Your task to perform on an android device: toggle priority inbox in the gmail app Image 0: 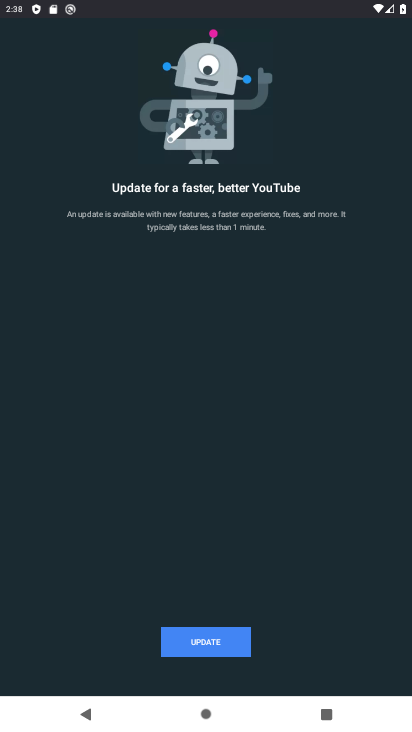
Step 0: press back button
Your task to perform on an android device: toggle priority inbox in the gmail app Image 1: 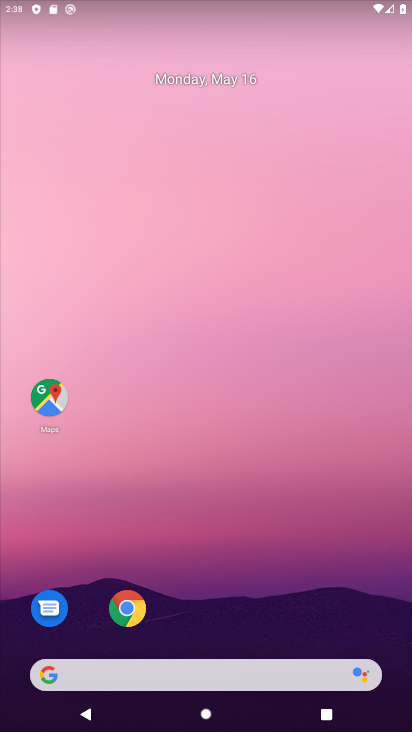
Step 1: drag from (262, 579) to (297, 119)
Your task to perform on an android device: toggle priority inbox in the gmail app Image 2: 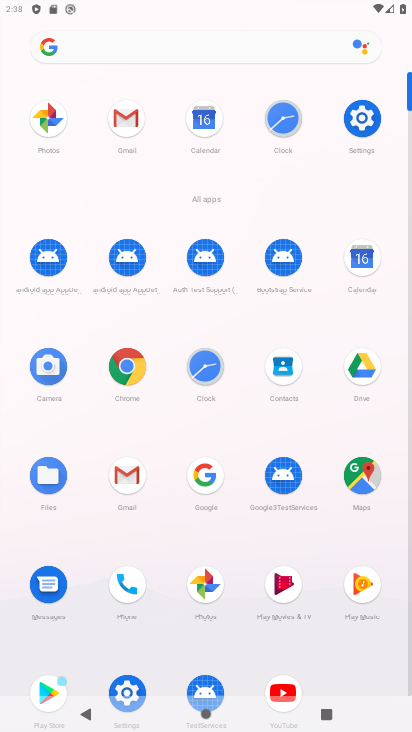
Step 2: click (125, 120)
Your task to perform on an android device: toggle priority inbox in the gmail app Image 3: 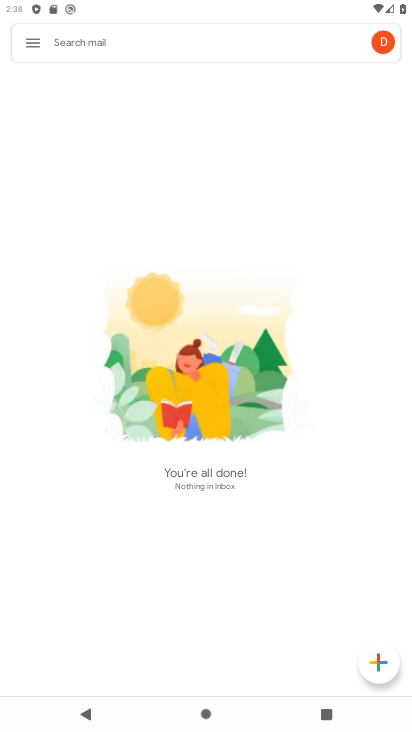
Step 3: click (35, 43)
Your task to perform on an android device: toggle priority inbox in the gmail app Image 4: 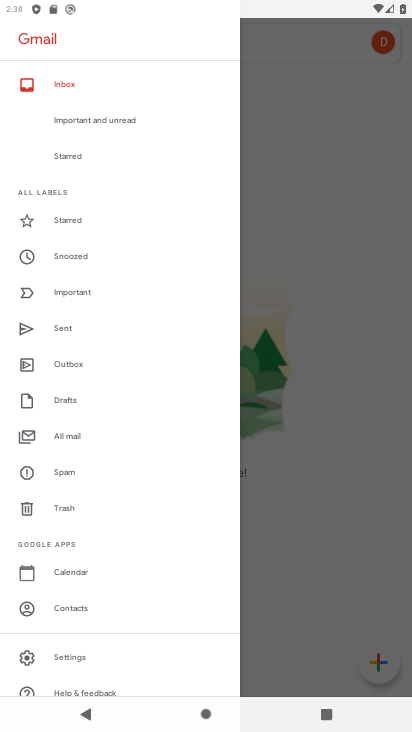
Step 4: click (74, 657)
Your task to perform on an android device: toggle priority inbox in the gmail app Image 5: 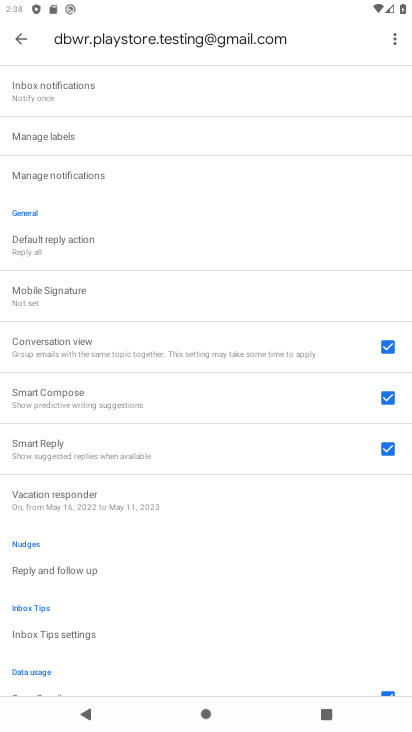
Step 5: drag from (113, 209) to (114, 322)
Your task to perform on an android device: toggle priority inbox in the gmail app Image 6: 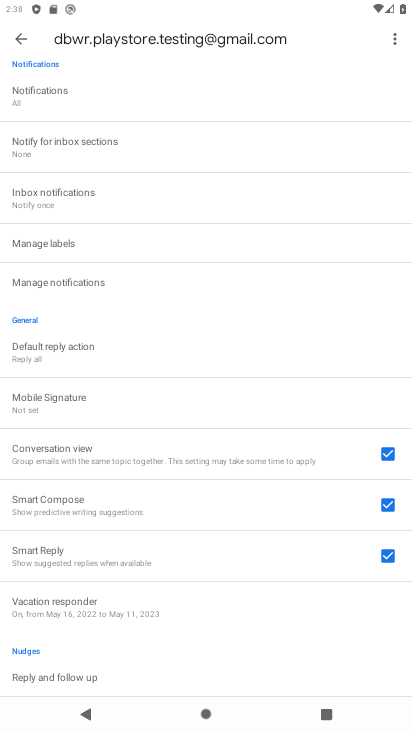
Step 6: drag from (112, 205) to (124, 312)
Your task to perform on an android device: toggle priority inbox in the gmail app Image 7: 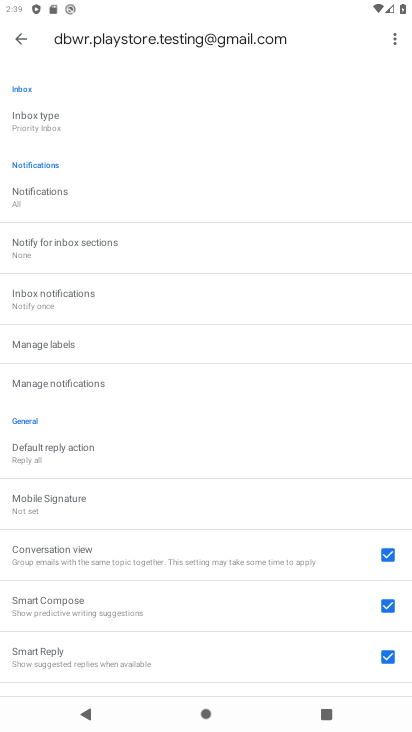
Step 7: click (40, 135)
Your task to perform on an android device: toggle priority inbox in the gmail app Image 8: 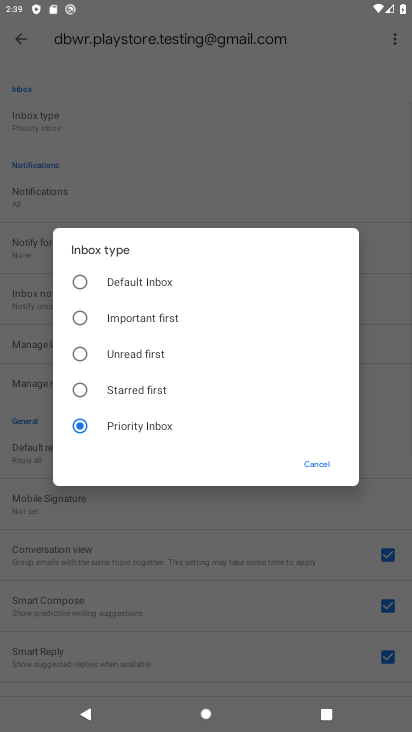
Step 8: click (79, 279)
Your task to perform on an android device: toggle priority inbox in the gmail app Image 9: 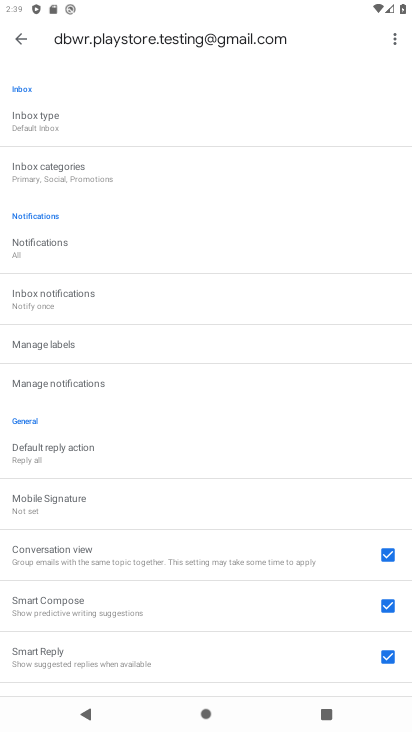
Step 9: task complete